Your task to perform on an android device: Go to wifi settings Image 0: 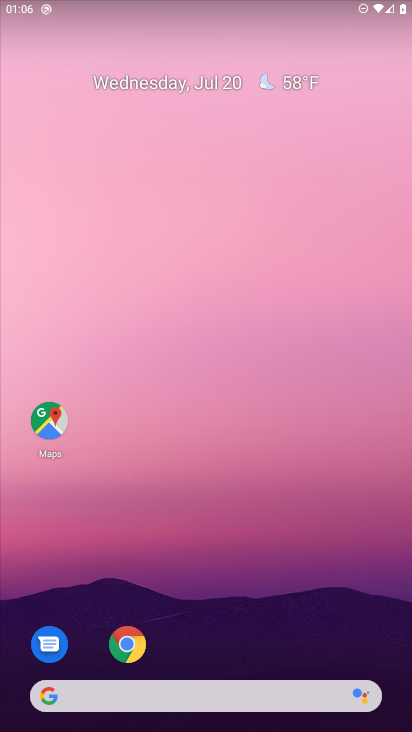
Step 0: drag from (146, 388) to (181, 312)
Your task to perform on an android device: Go to wifi settings Image 1: 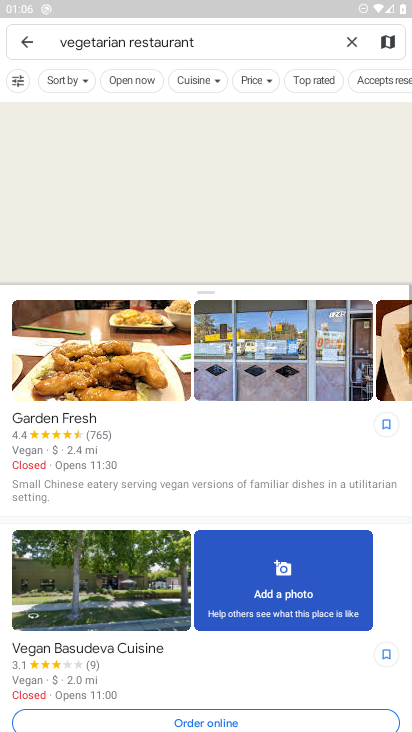
Step 1: press home button
Your task to perform on an android device: Go to wifi settings Image 2: 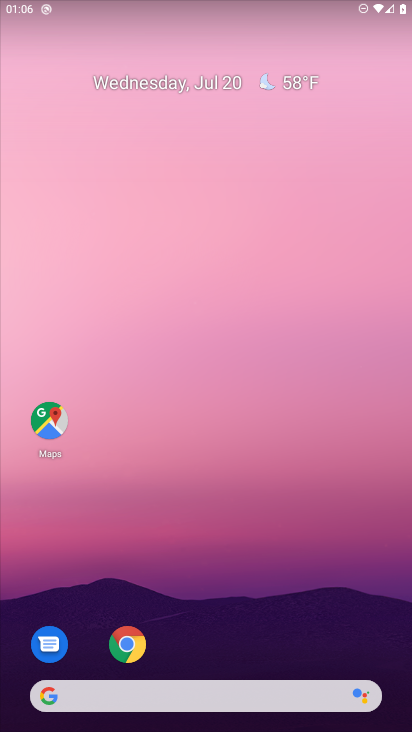
Step 2: drag from (78, 606) to (271, 96)
Your task to perform on an android device: Go to wifi settings Image 3: 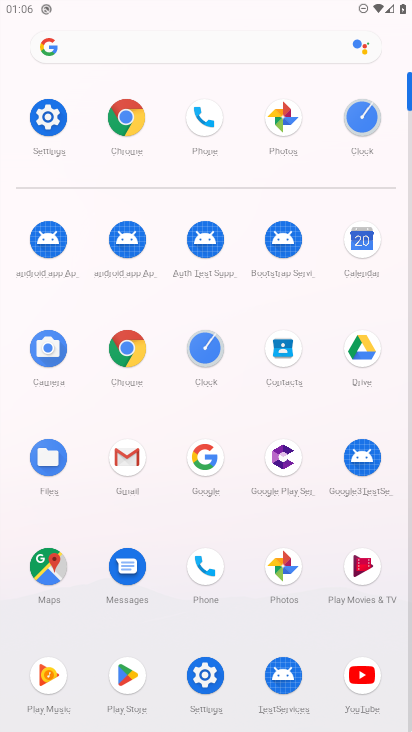
Step 3: click (192, 668)
Your task to perform on an android device: Go to wifi settings Image 4: 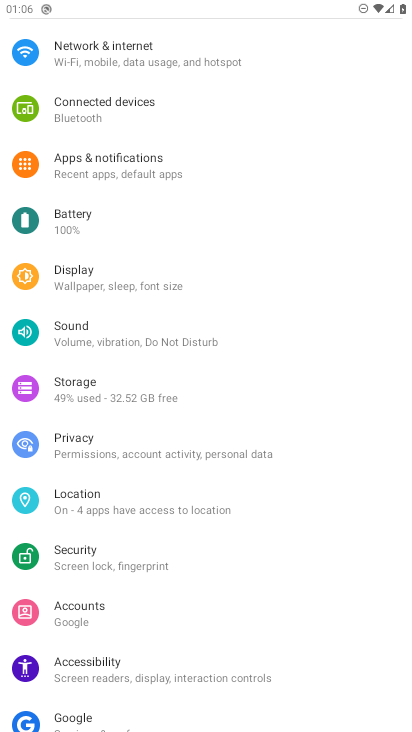
Step 4: click (115, 37)
Your task to perform on an android device: Go to wifi settings Image 5: 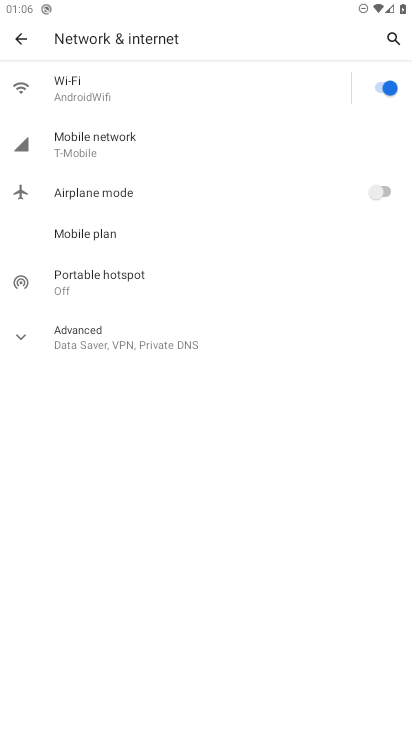
Step 5: click (84, 102)
Your task to perform on an android device: Go to wifi settings Image 6: 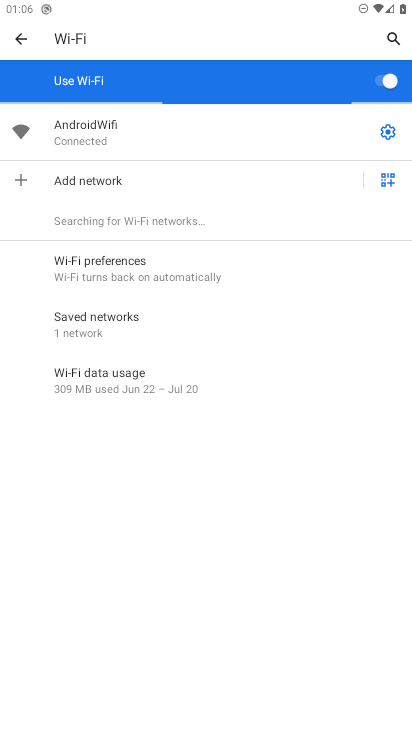
Step 6: task complete